Your task to perform on an android device: manage bookmarks in the chrome app Image 0: 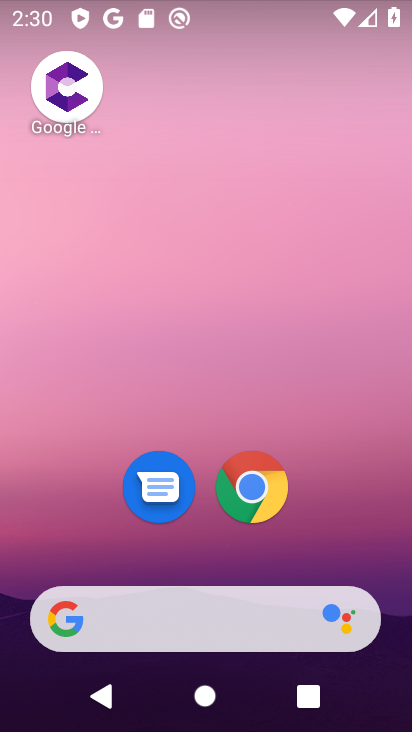
Step 0: click (265, 492)
Your task to perform on an android device: manage bookmarks in the chrome app Image 1: 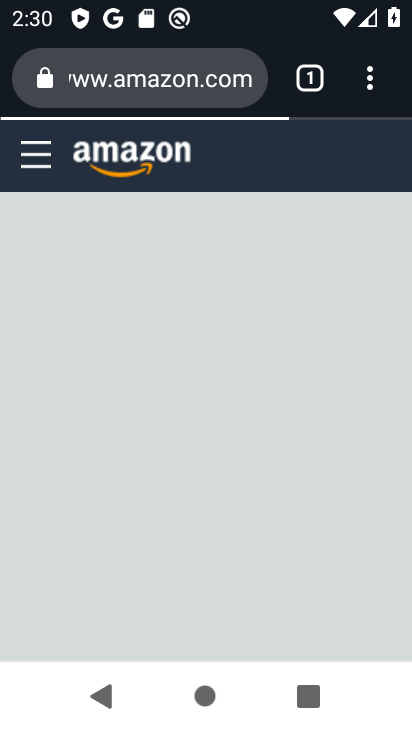
Step 1: task complete